Your task to perform on an android device: open app "DoorDash - Food Delivery" Image 0: 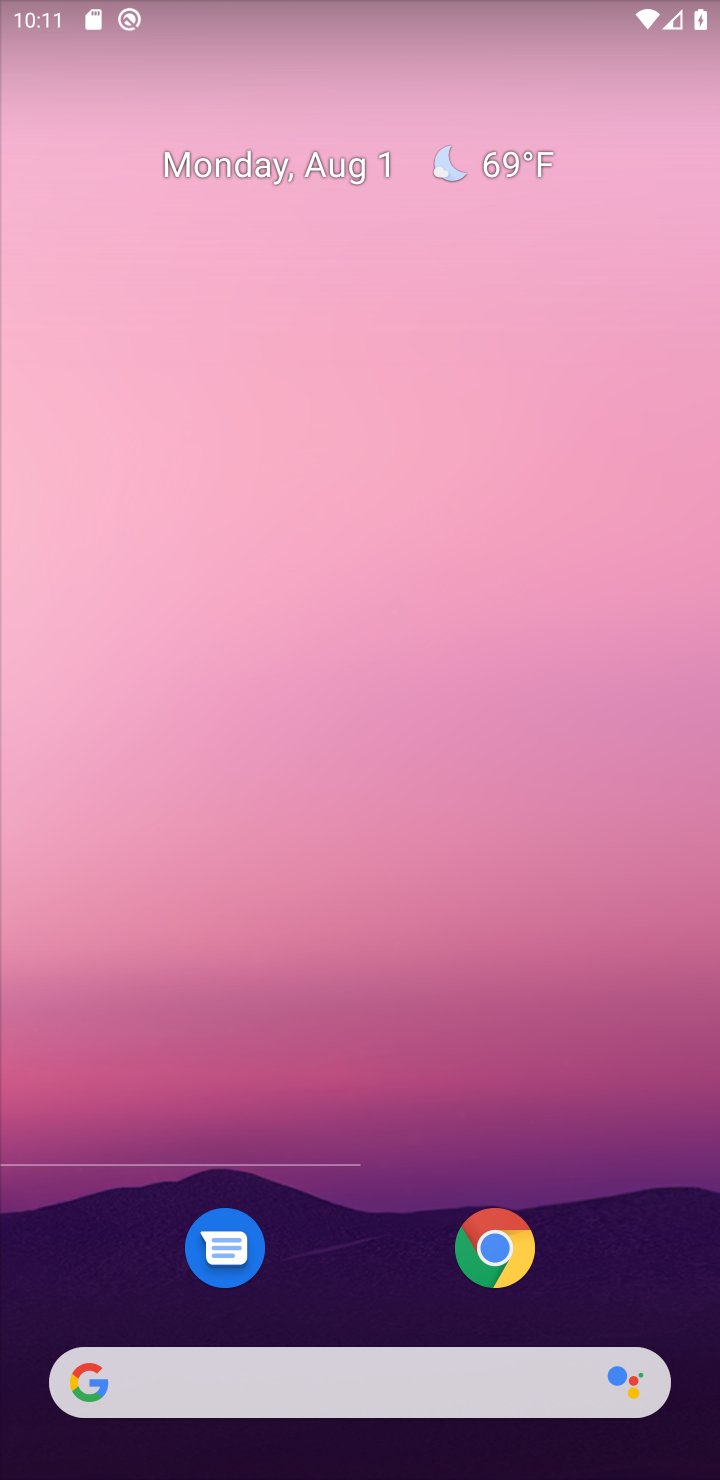
Step 0: click (455, 168)
Your task to perform on an android device: open app "DoorDash - Food Delivery" Image 1: 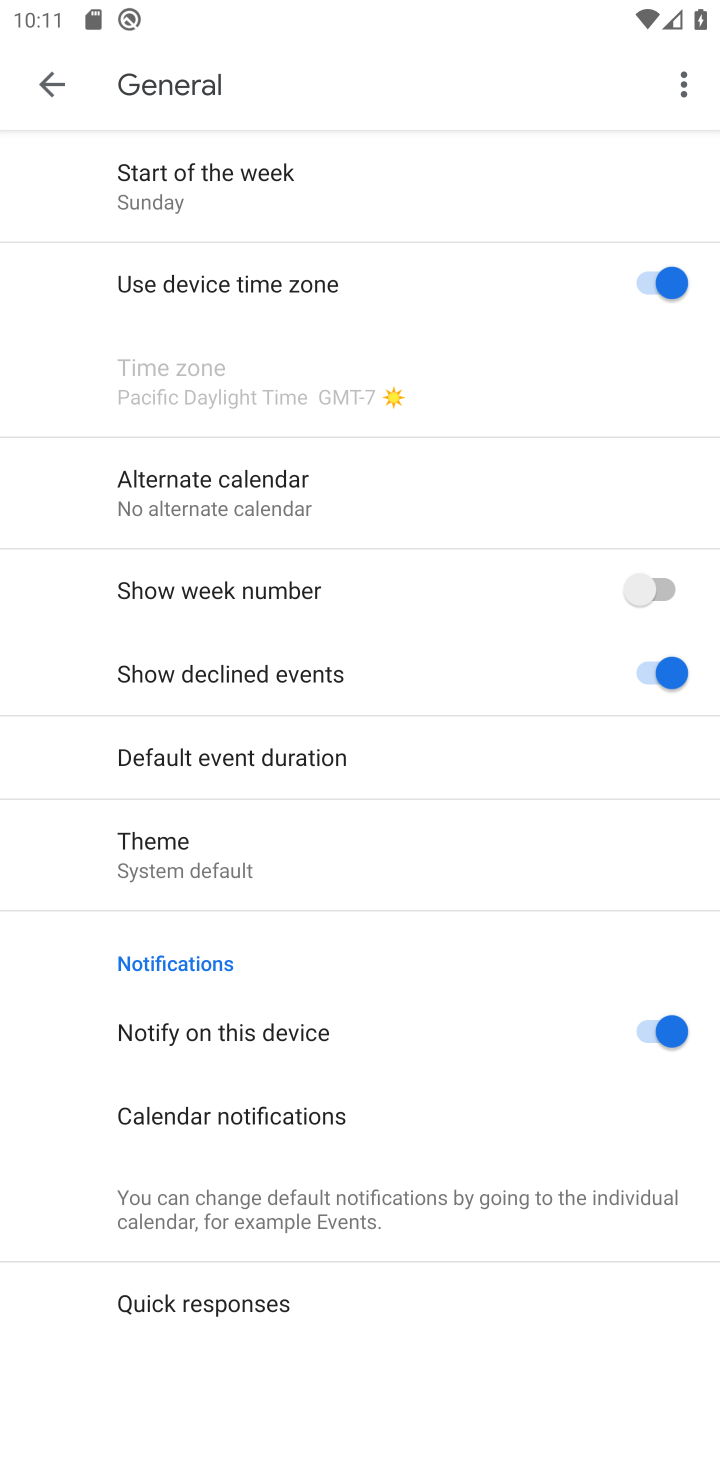
Step 1: press home button
Your task to perform on an android device: open app "DoorDash - Food Delivery" Image 2: 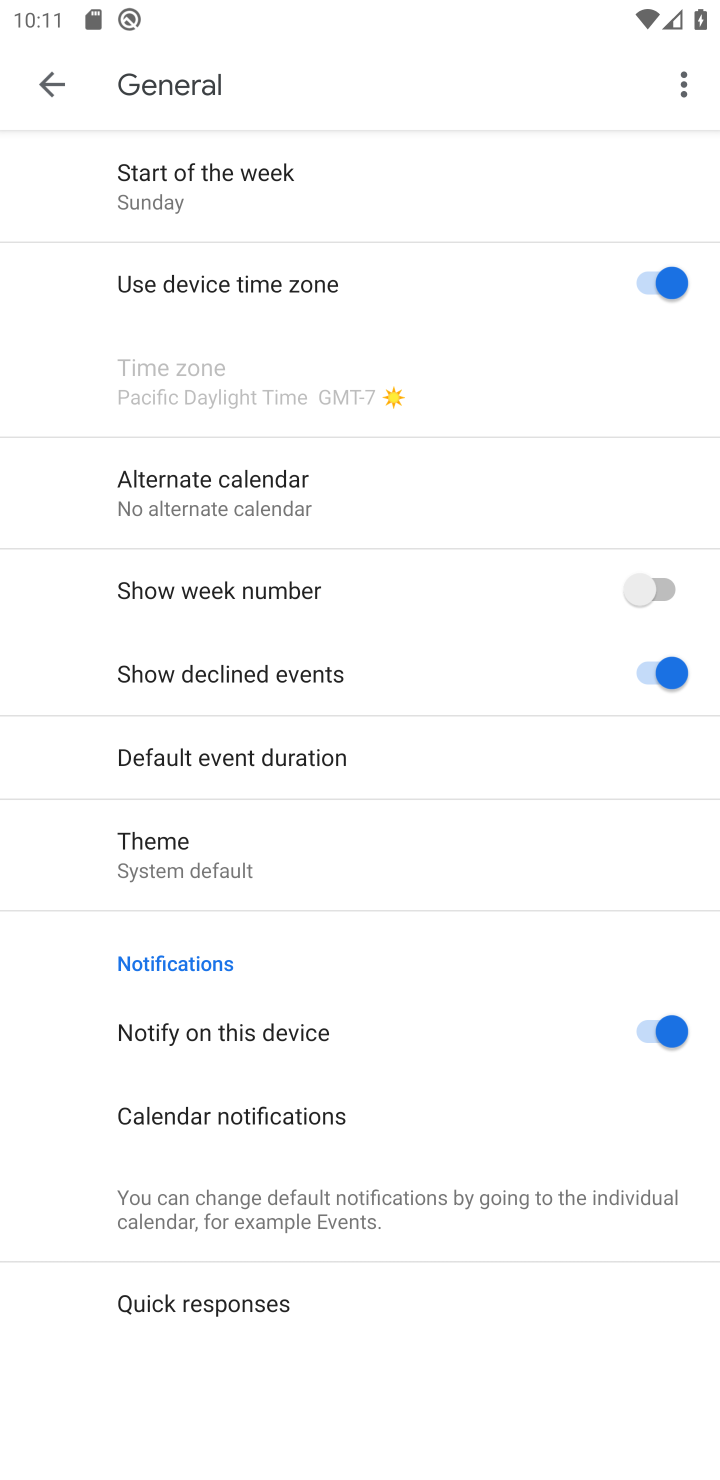
Step 2: press home button
Your task to perform on an android device: open app "DoorDash - Food Delivery" Image 3: 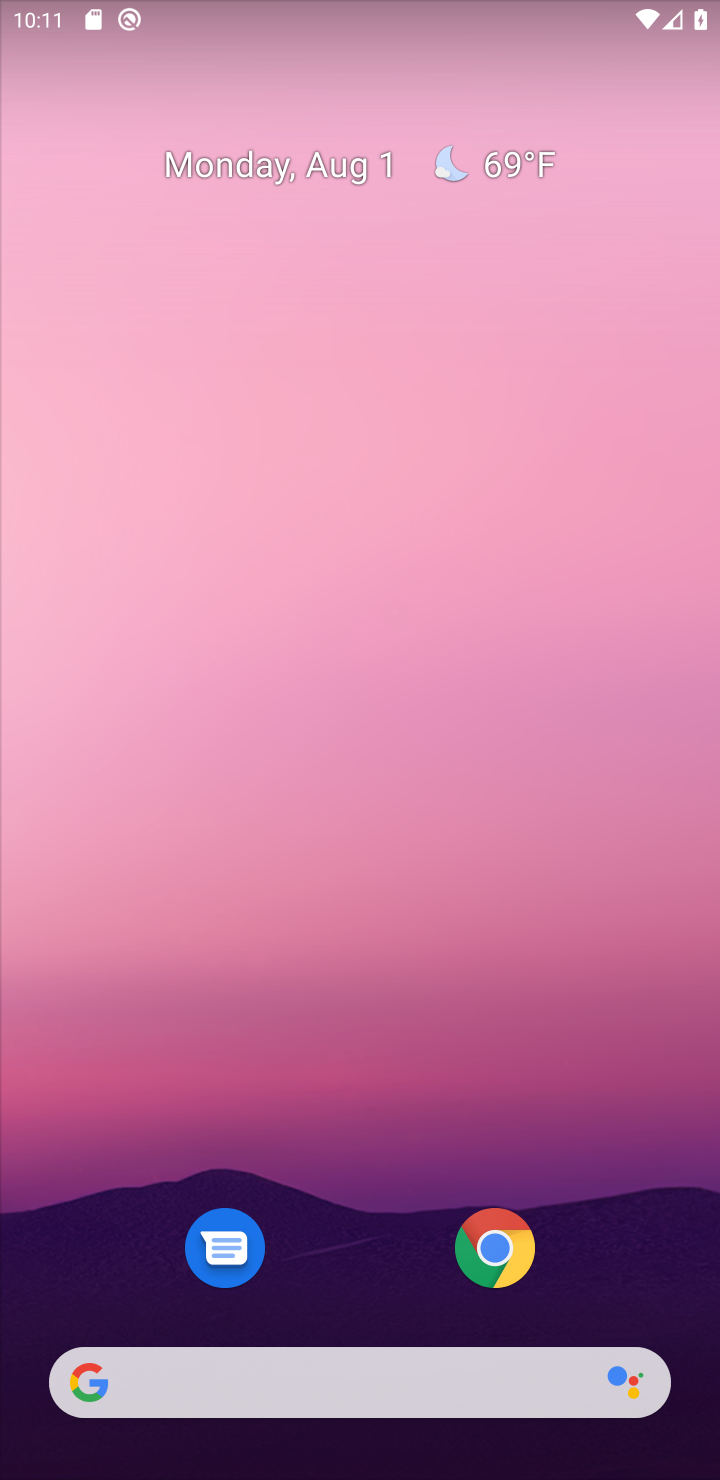
Step 3: drag from (620, 1259) to (563, 0)
Your task to perform on an android device: open app "DoorDash - Food Delivery" Image 4: 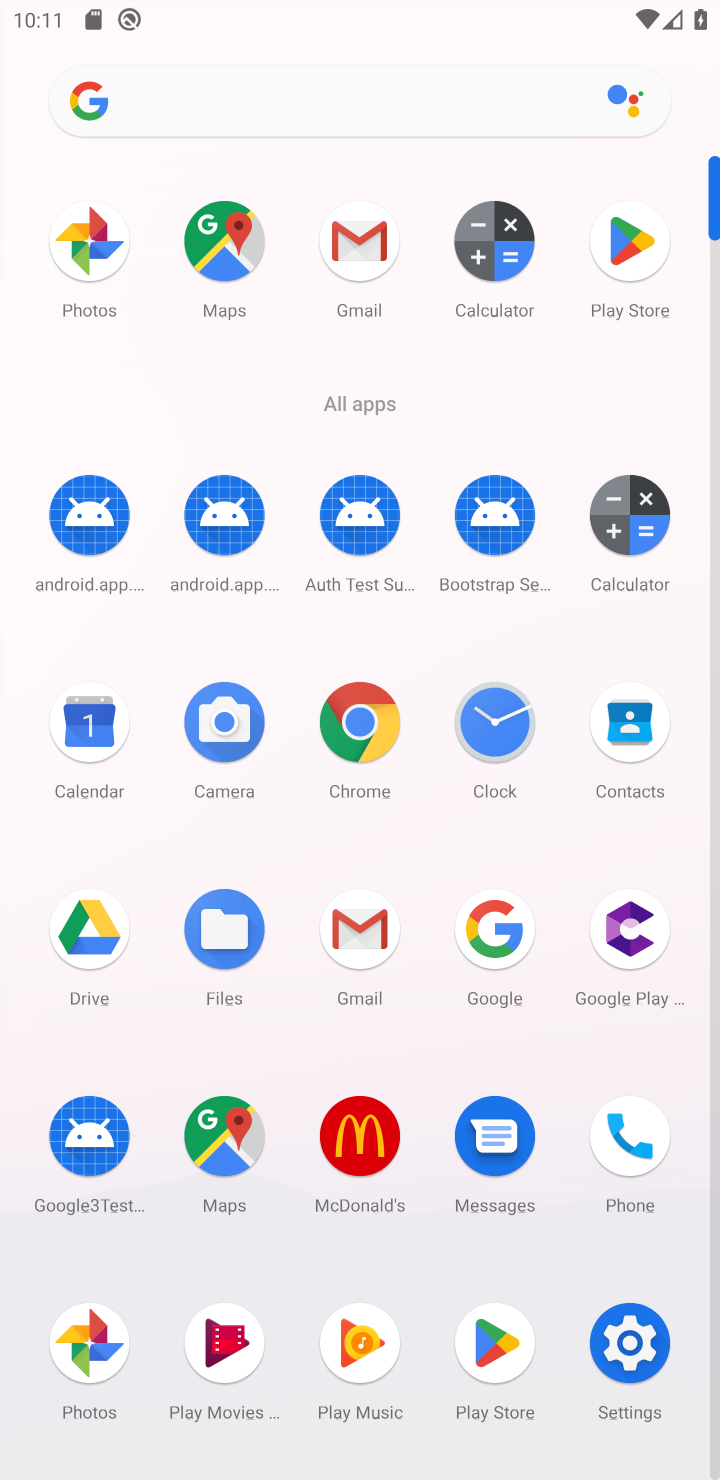
Step 4: click (645, 254)
Your task to perform on an android device: open app "DoorDash - Food Delivery" Image 5: 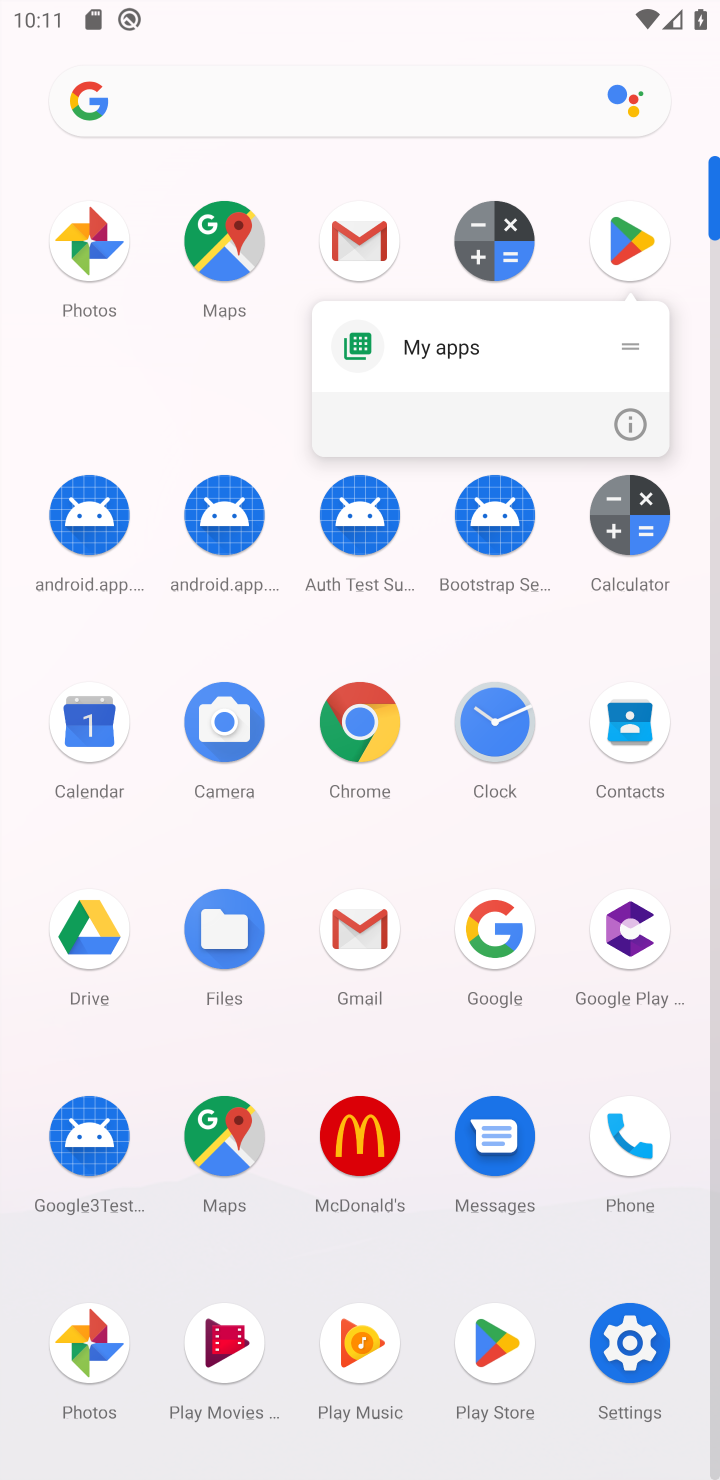
Step 5: click (522, 1341)
Your task to perform on an android device: open app "DoorDash - Food Delivery" Image 6: 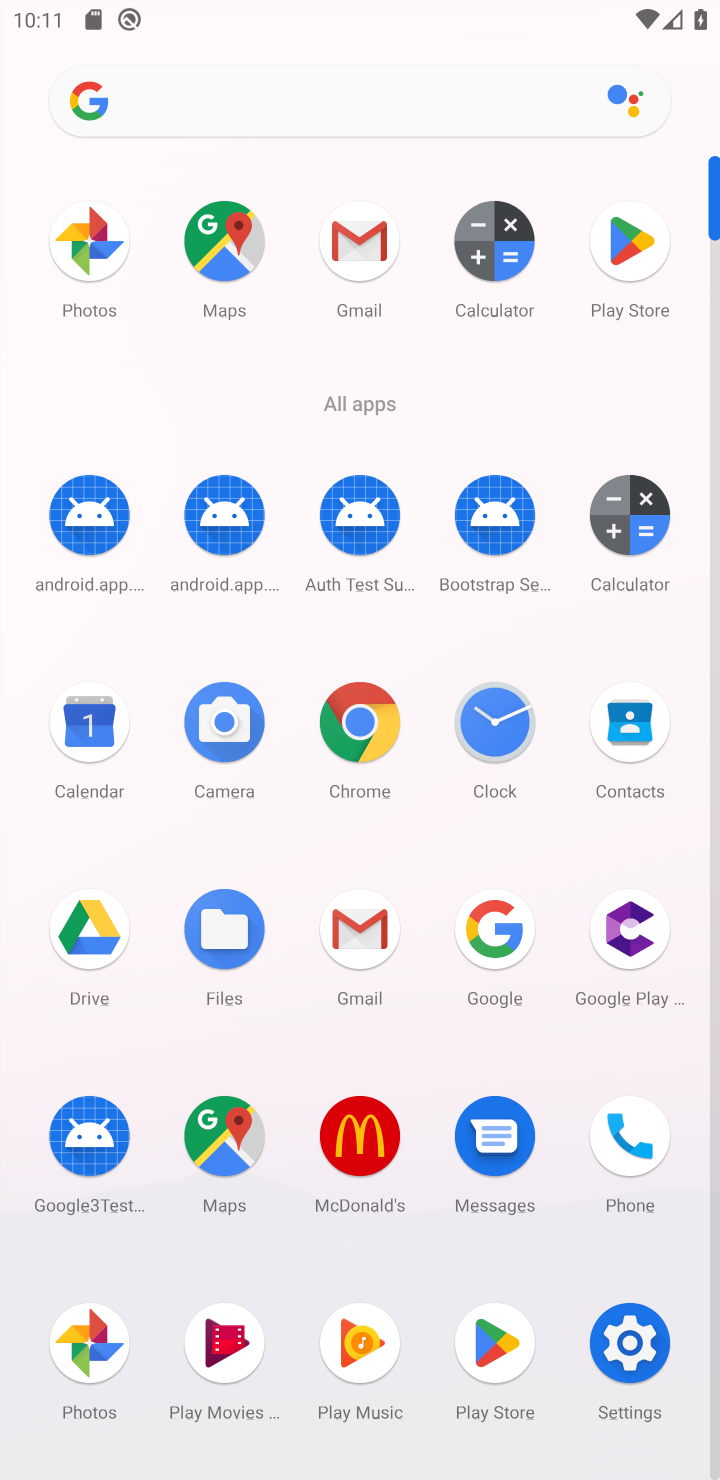
Step 6: click (481, 1340)
Your task to perform on an android device: open app "DoorDash - Food Delivery" Image 7: 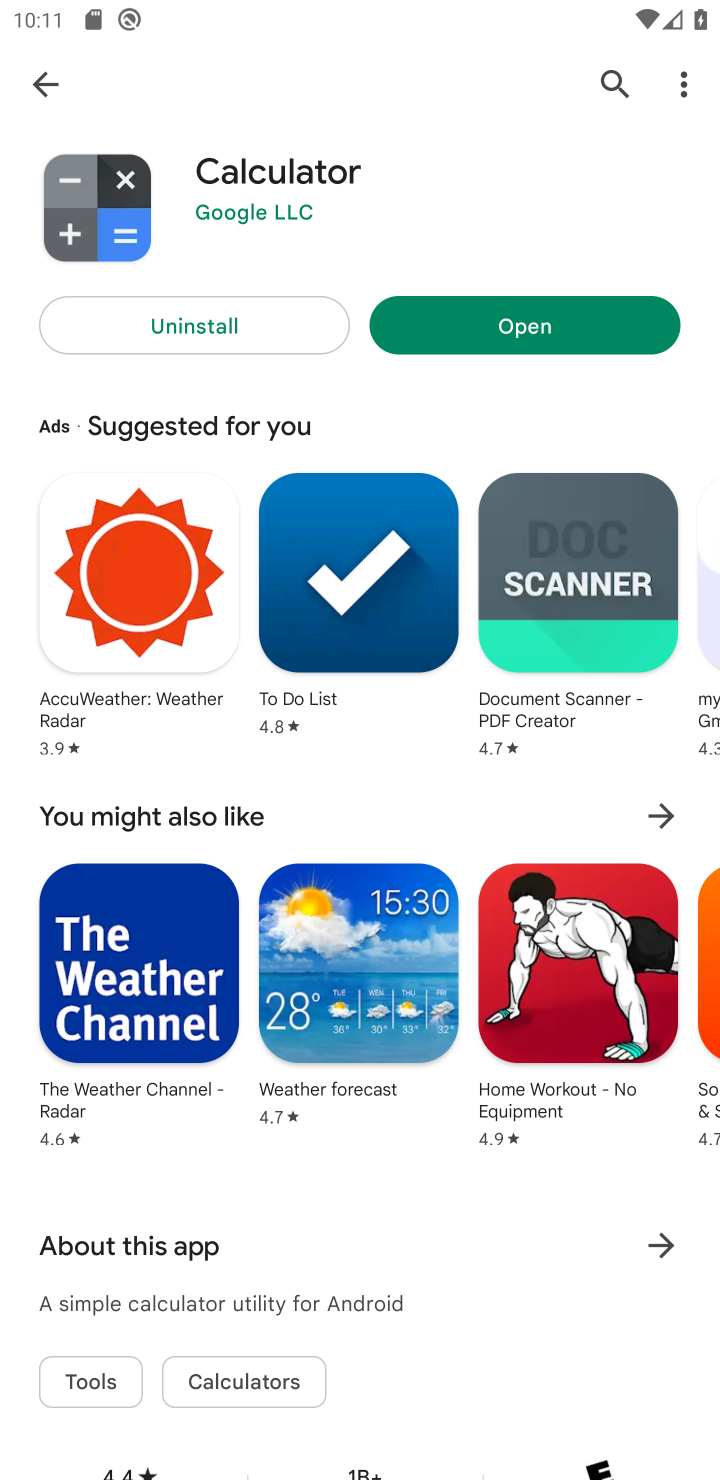
Step 7: click (615, 76)
Your task to perform on an android device: open app "DoorDash - Food Delivery" Image 8: 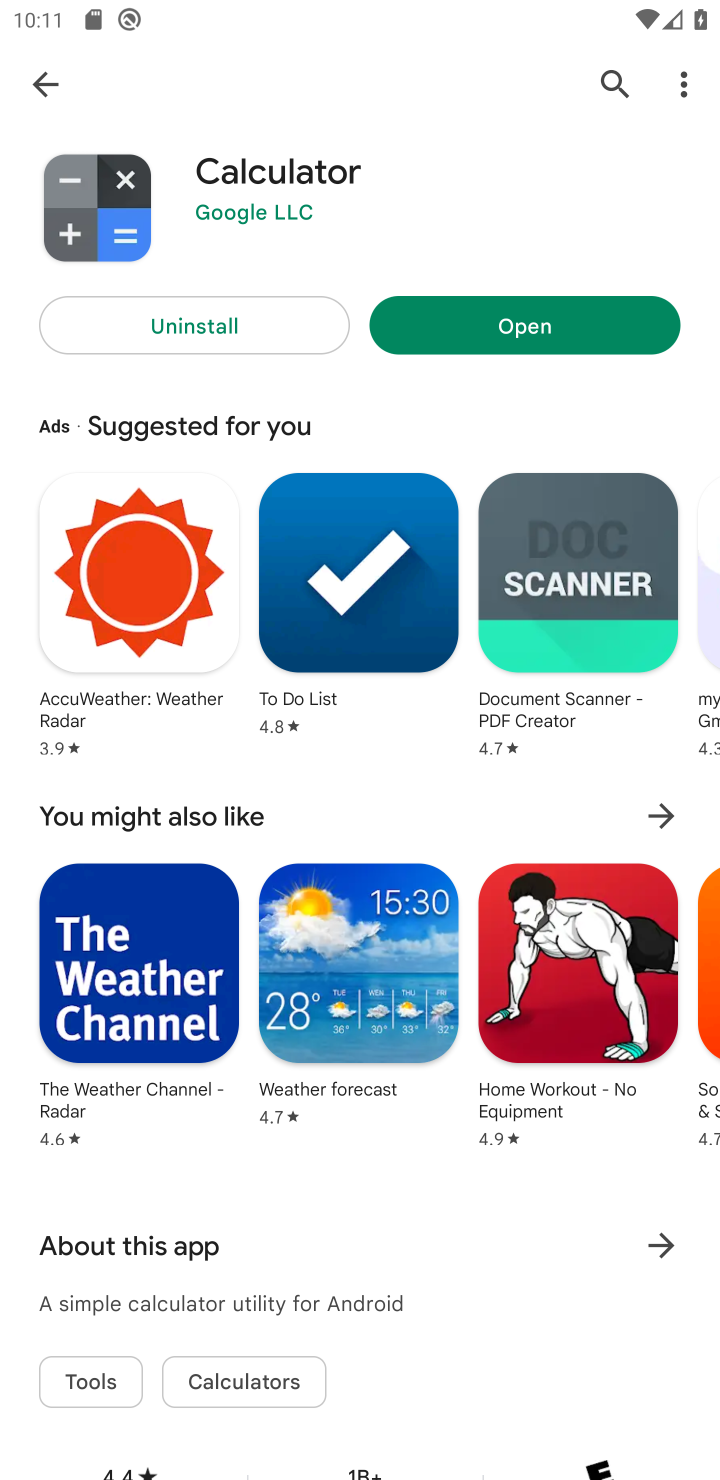
Step 8: click (55, 90)
Your task to perform on an android device: open app "DoorDash - Food Delivery" Image 9: 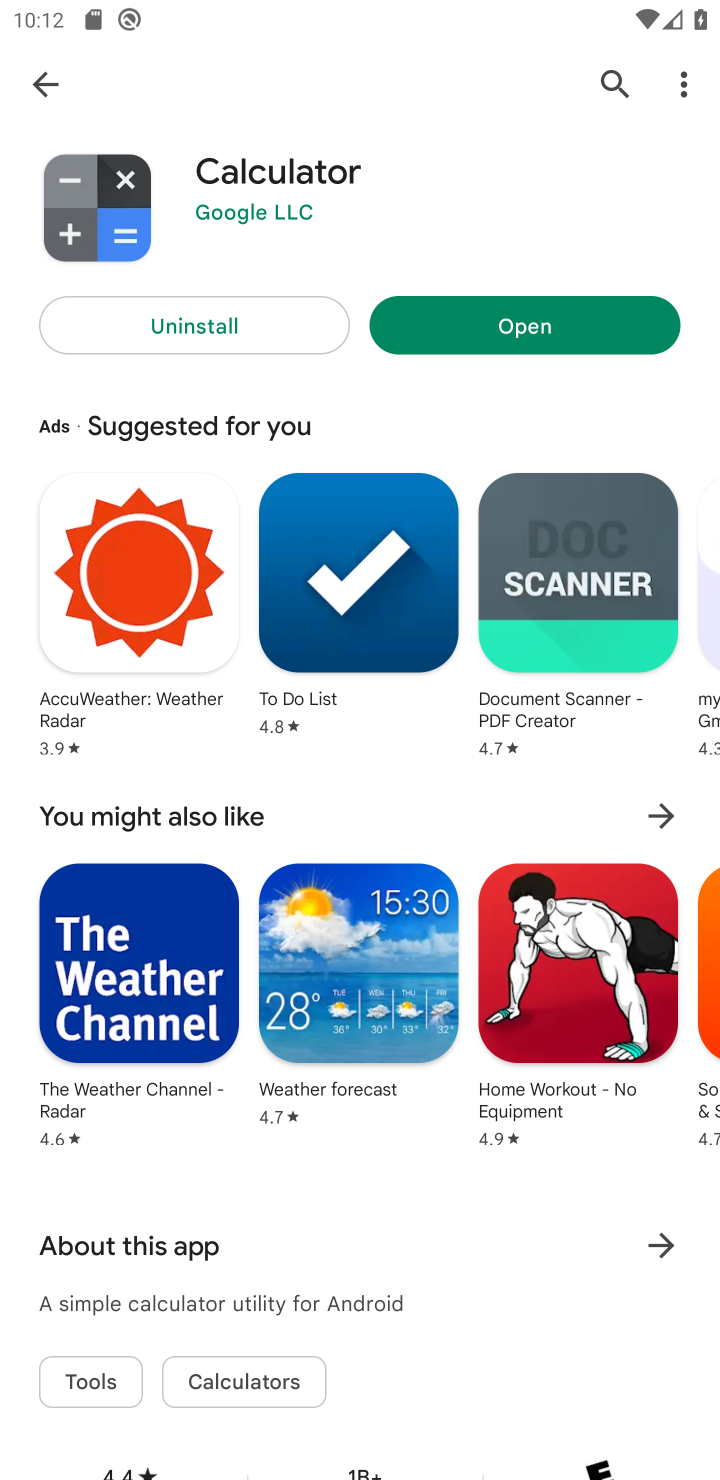
Step 9: click (614, 91)
Your task to perform on an android device: open app "DoorDash - Food Delivery" Image 10: 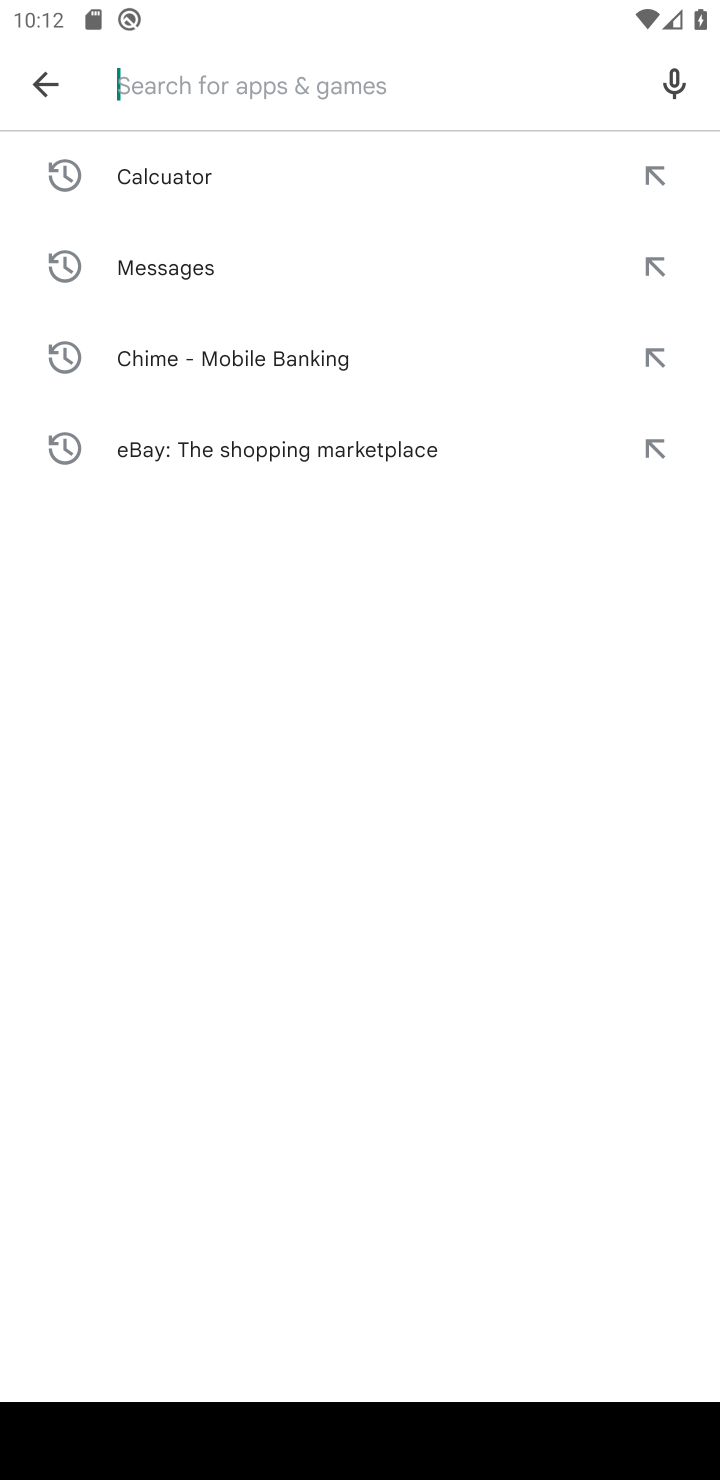
Step 10: type "DoorDash - Food Delivery"
Your task to perform on an android device: open app "DoorDash - Food Delivery" Image 11: 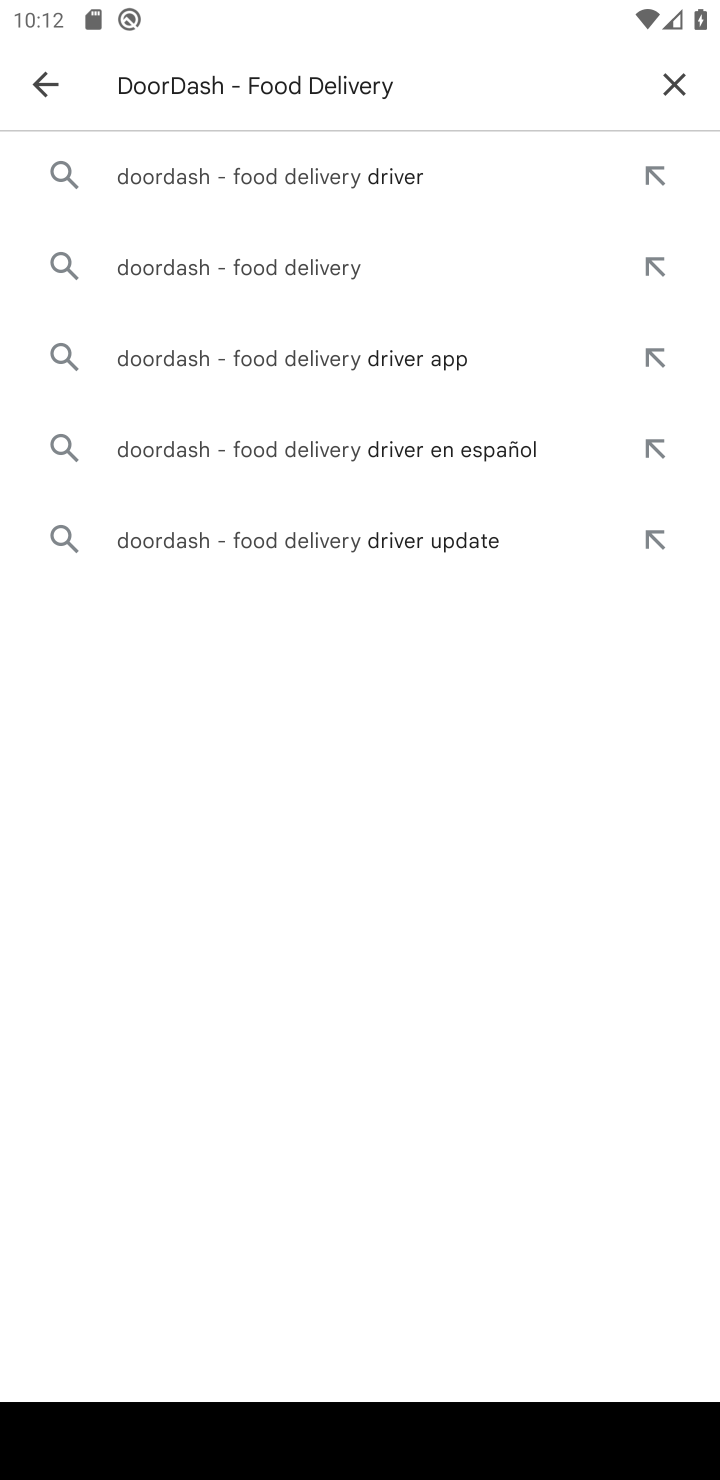
Step 11: press enter
Your task to perform on an android device: open app "DoorDash - Food Delivery" Image 12: 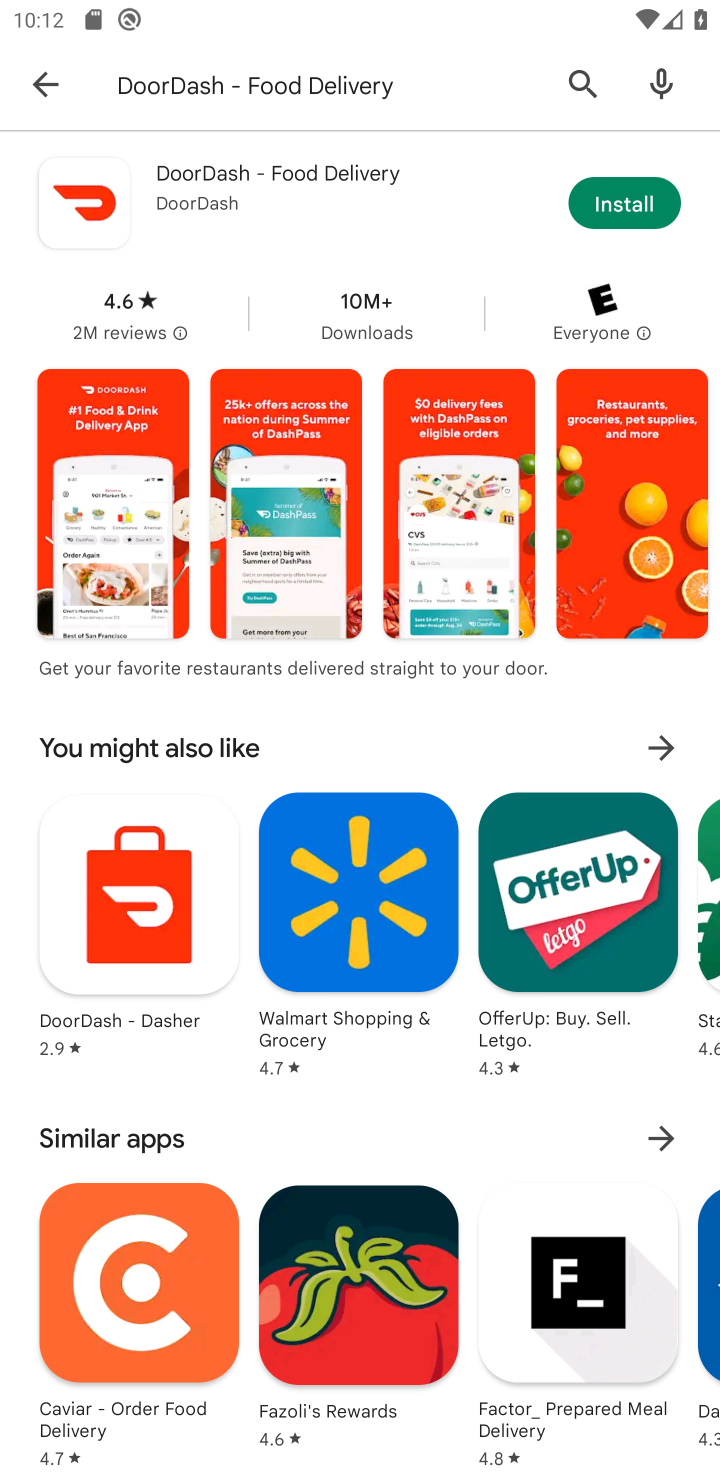
Step 12: click (231, 191)
Your task to perform on an android device: open app "DoorDash - Food Delivery" Image 13: 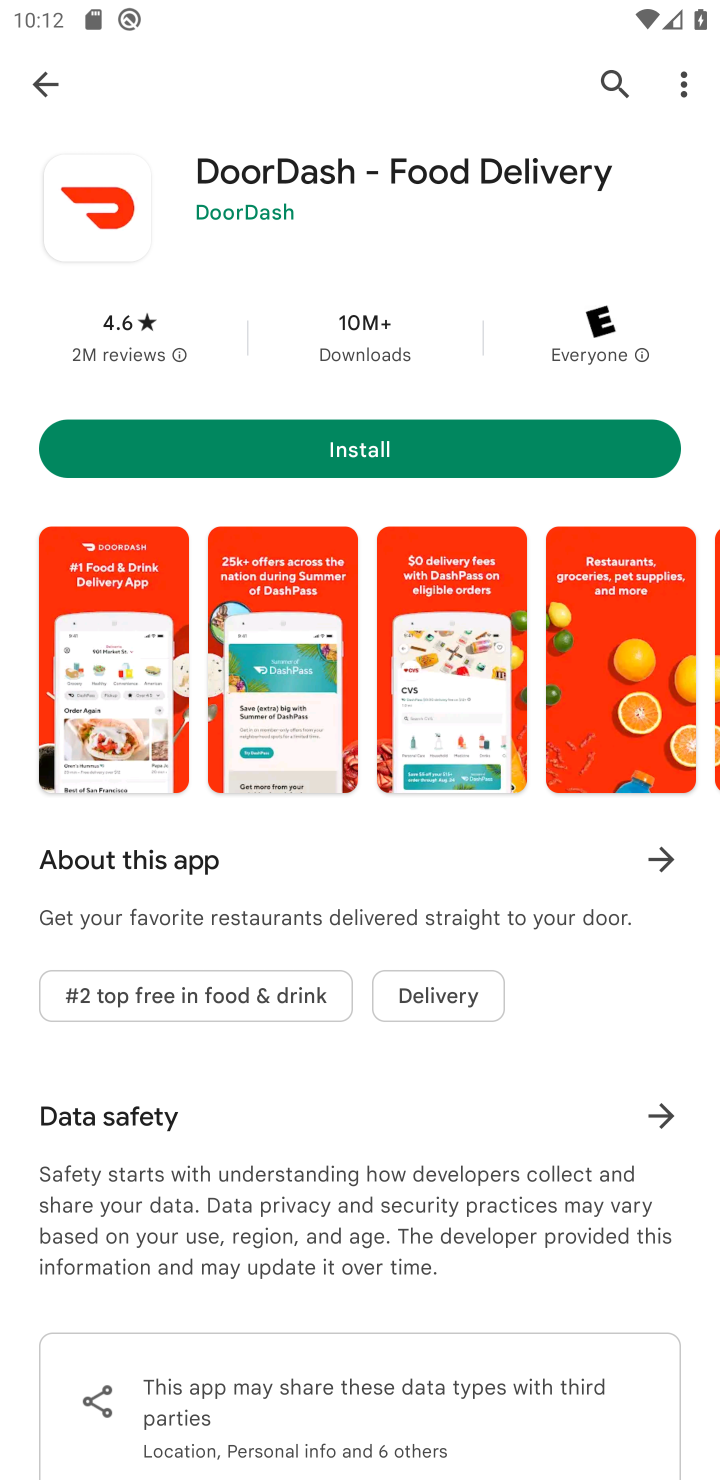
Step 13: task complete